Your task to perform on an android device: turn on javascript in the chrome app Image 0: 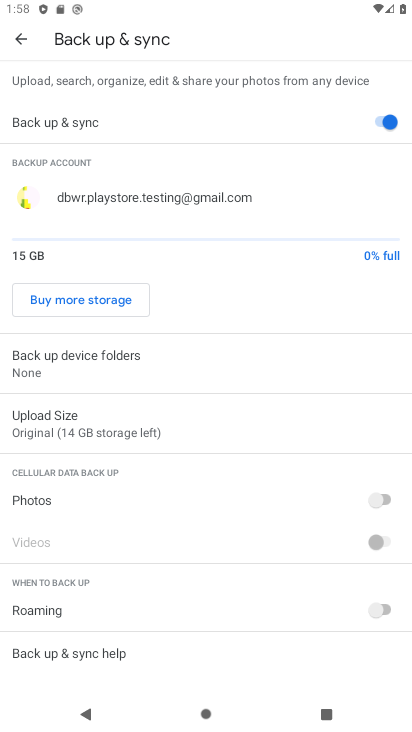
Step 0: press back button
Your task to perform on an android device: turn on javascript in the chrome app Image 1: 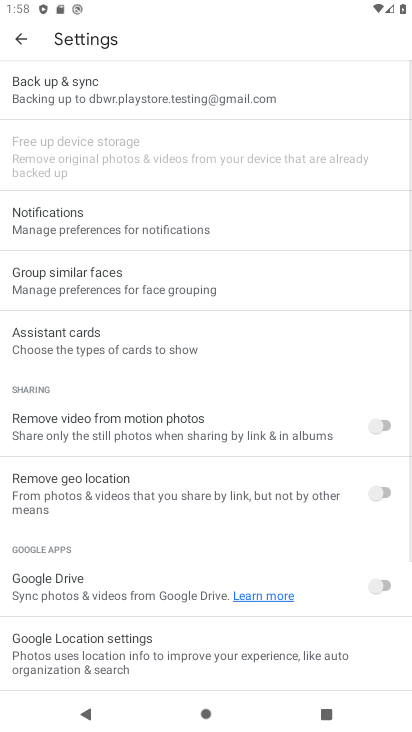
Step 1: press home button
Your task to perform on an android device: turn on javascript in the chrome app Image 2: 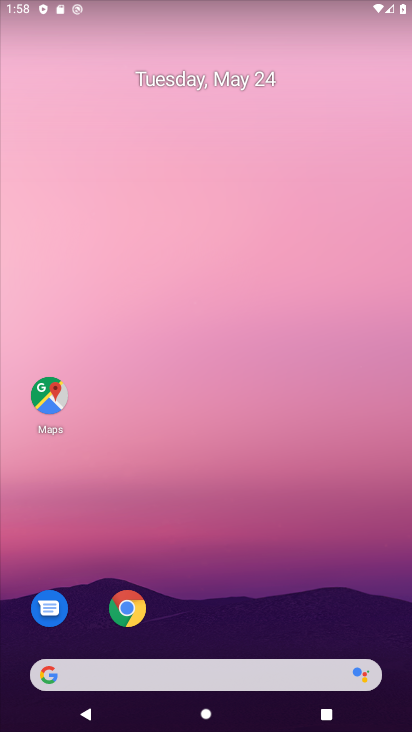
Step 2: drag from (255, 573) to (213, 115)
Your task to perform on an android device: turn on javascript in the chrome app Image 3: 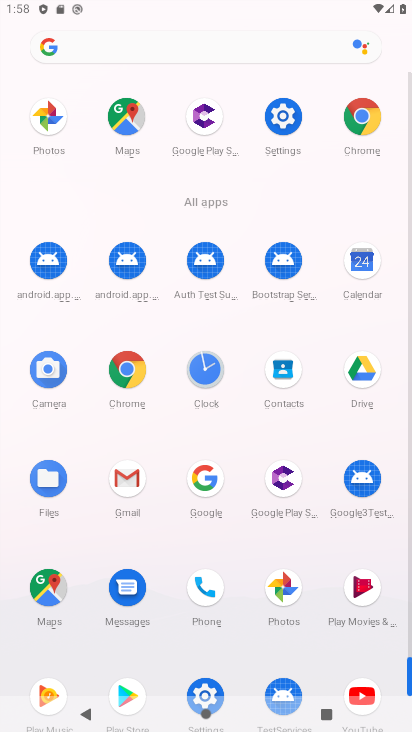
Step 3: drag from (17, 572) to (10, 245)
Your task to perform on an android device: turn on javascript in the chrome app Image 4: 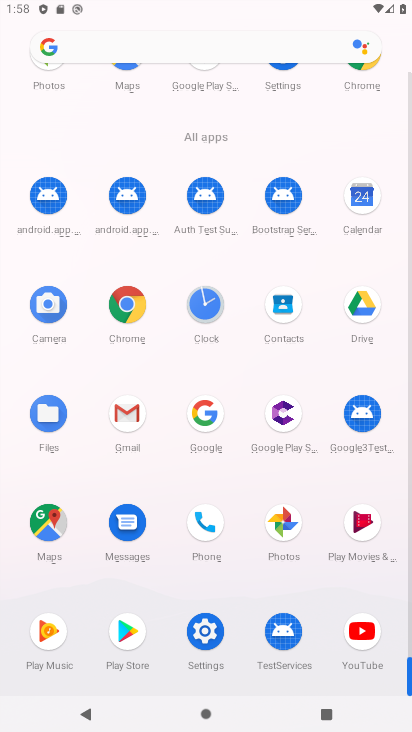
Step 4: click (125, 298)
Your task to perform on an android device: turn on javascript in the chrome app Image 5: 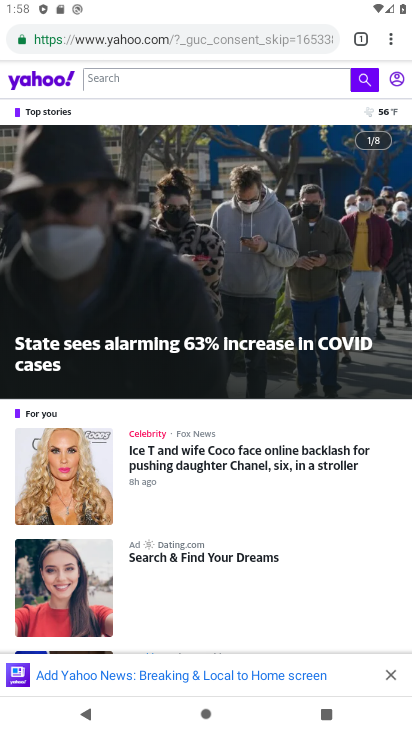
Step 5: drag from (395, 37) to (264, 470)
Your task to perform on an android device: turn on javascript in the chrome app Image 6: 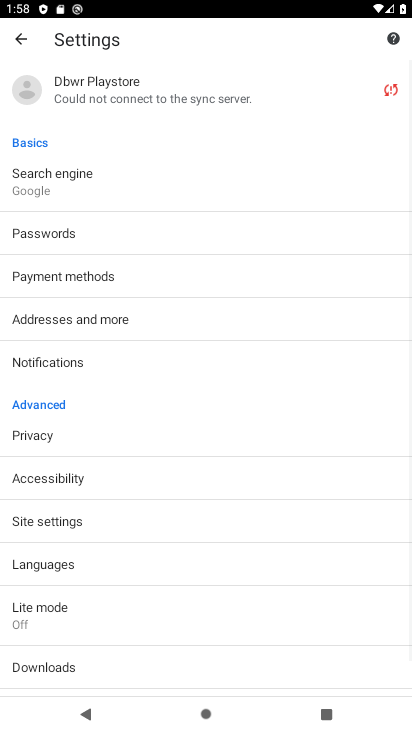
Step 6: drag from (173, 665) to (241, 183)
Your task to perform on an android device: turn on javascript in the chrome app Image 7: 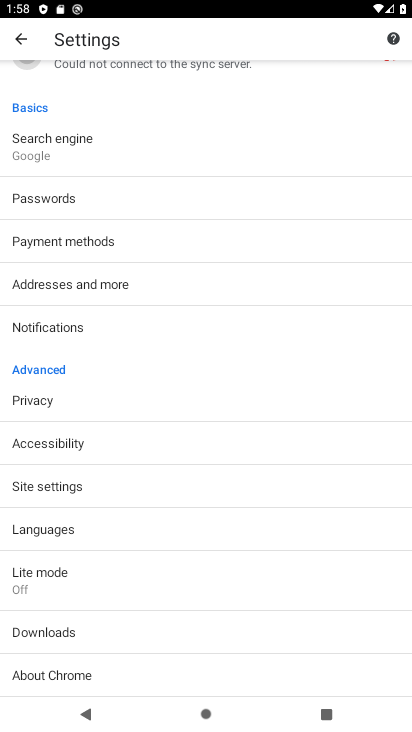
Step 7: click (58, 492)
Your task to perform on an android device: turn on javascript in the chrome app Image 8: 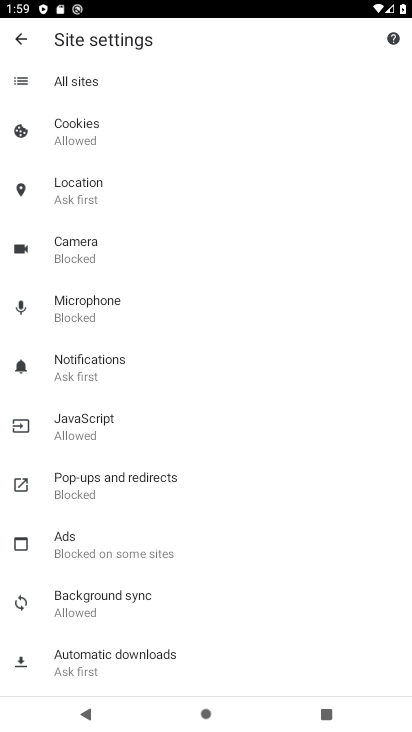
Step 8: click (114, 423)
Your task to perform on an android device: turn on javascript in the chrome app Image 9: 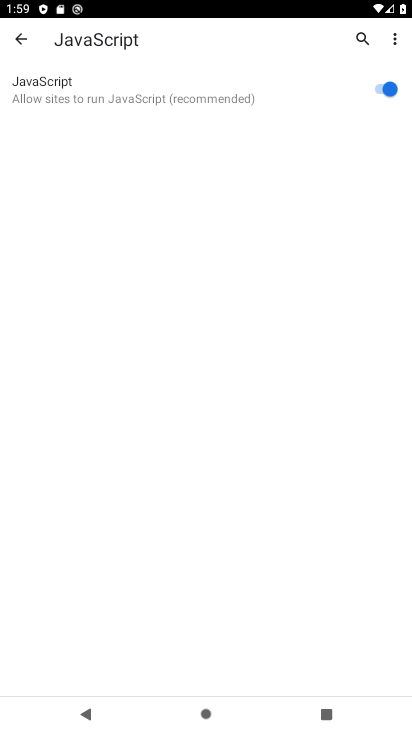
Step 9: task complete